Your task to perform on an android device: change the clock display to show seconds Image 0: 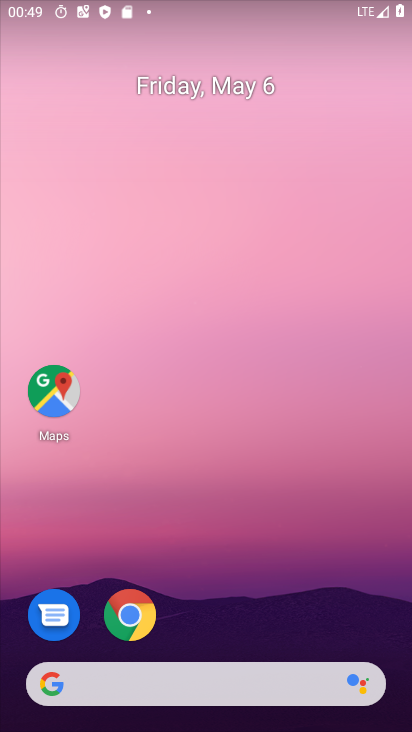
Step 0: drag from (242, 601) to (299, 50)
Your task to perform on an android device: change the clock display to show seconds Image 1: 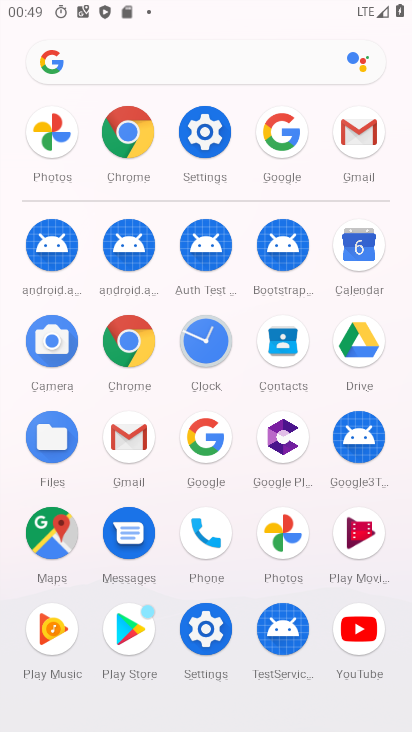
Step 1: click (202, 348)
Your task to perform on an android device: change the clock display to show seconds Image 2: 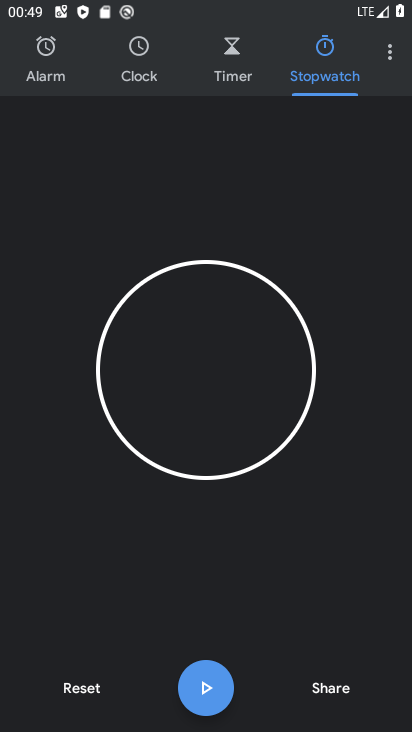
Step 2: click (387, 49)
Your task to perform on an android device: change the clock display to show seconds Image 3: 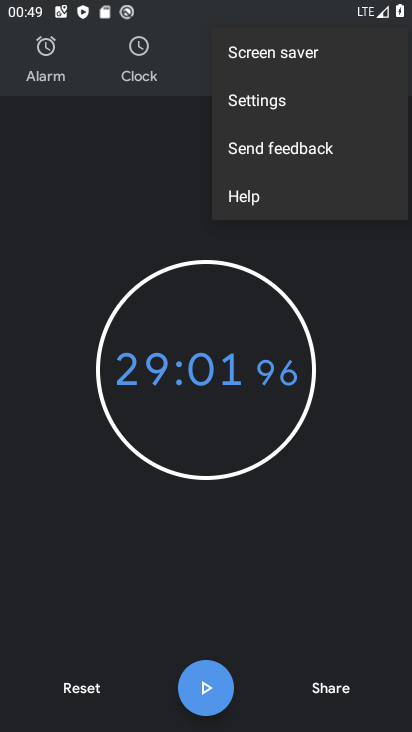
Step 3: click (268, 102)
Your task to perform on an android device: change the clock display to show seconds Image 4: 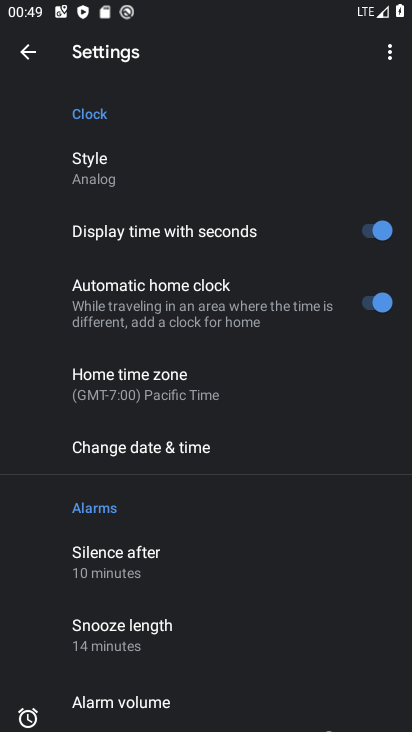
Step 4: click (377, 229)
Your task to perform on an android device: change the clock display to show seconds Image 5: 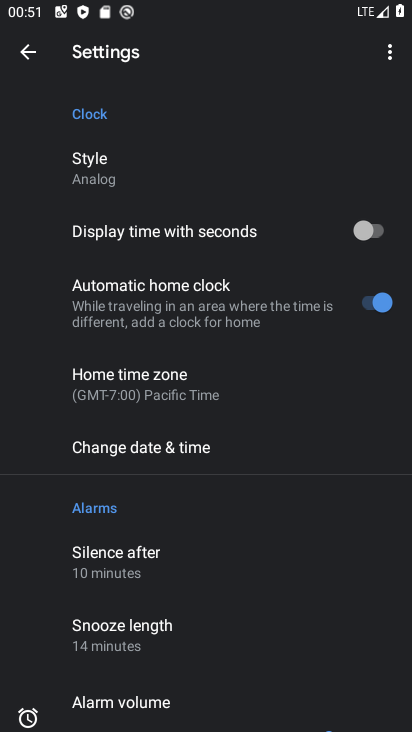
Step 5: task complete